Your task to perform on an android device: turn off translation in the chrome app Image 0: 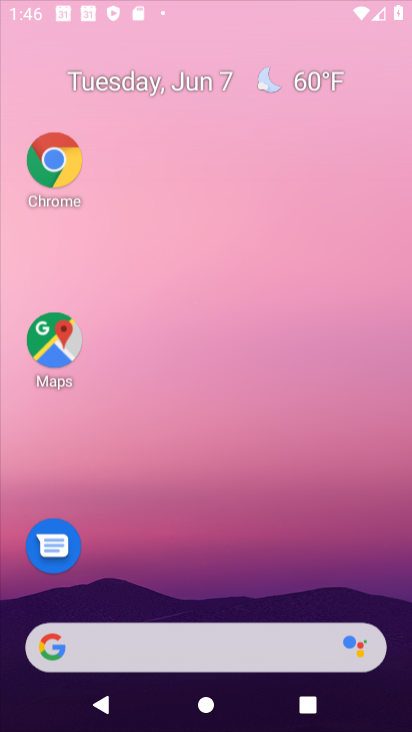
Step 0: click (347, 3)
Your task to perform on an android device: turn off translation in the chrome app Image 1: 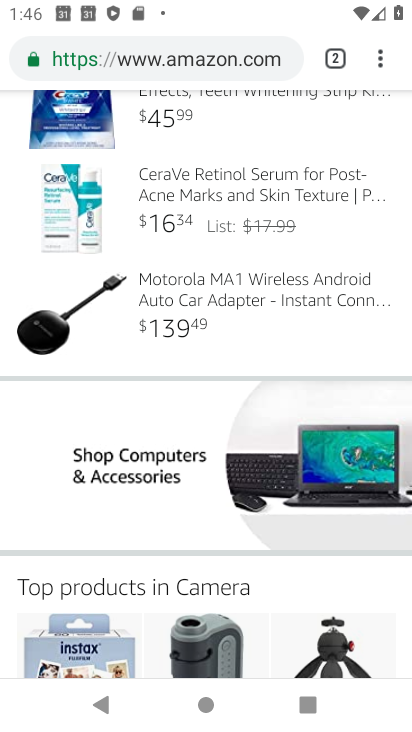
Step 1: drag from (210, 503) to (300, 68)
Your task to perform on an android device: turn off translation in the chrome app Image 2: 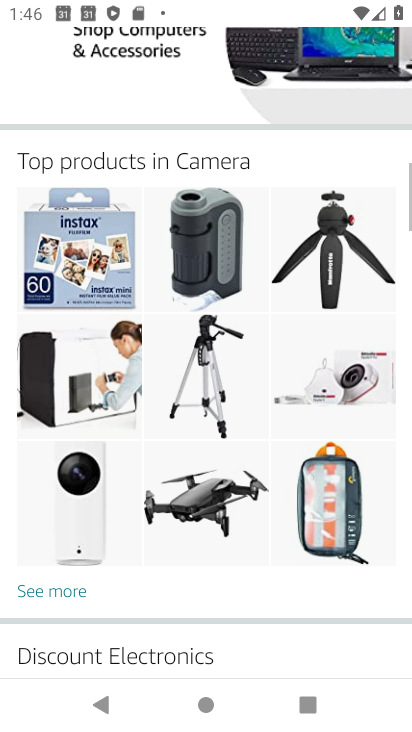
Step 2: drag from (309, 28) to (328, 675)
Your task to perform on an android device: turn off translation in the chrome app Image 3: 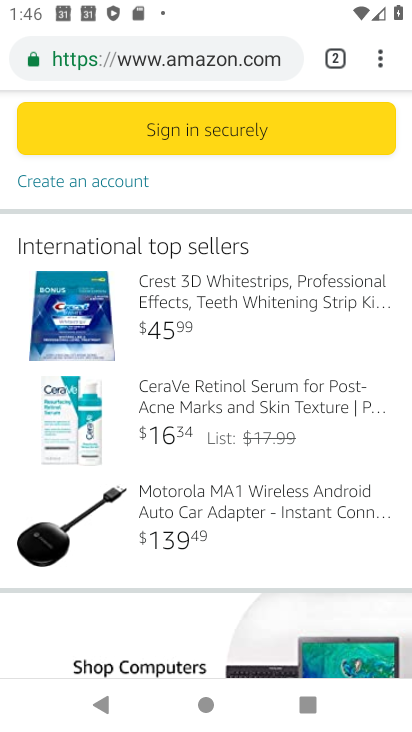
Step 3: drag from (250, 208) to (345, 715)
Your task to perform on an android device: turn off translation in the chrome app Image 4: 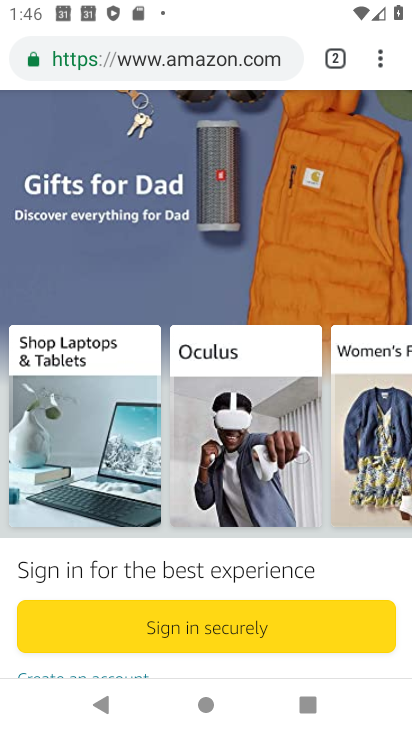
Step 4: drag from (383, 48) to (245, 561)
Your task to perform on an android device: turn off translation in the chrome app Image 5: 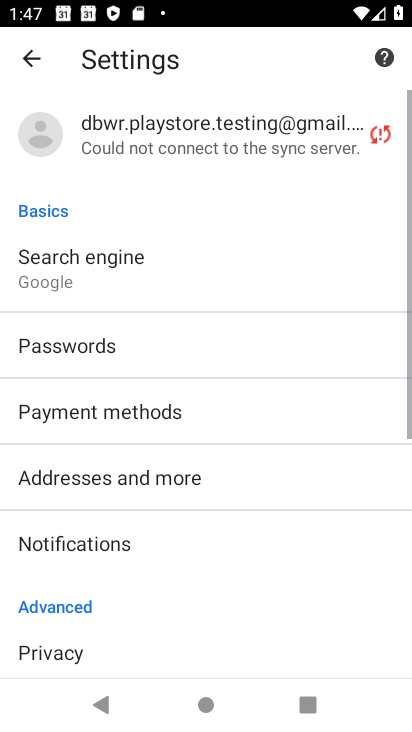
Step 5: drag from (236, 528) to (336, 2)
Your task to perform on an android device: turn off translation in the chrome app Image 6: 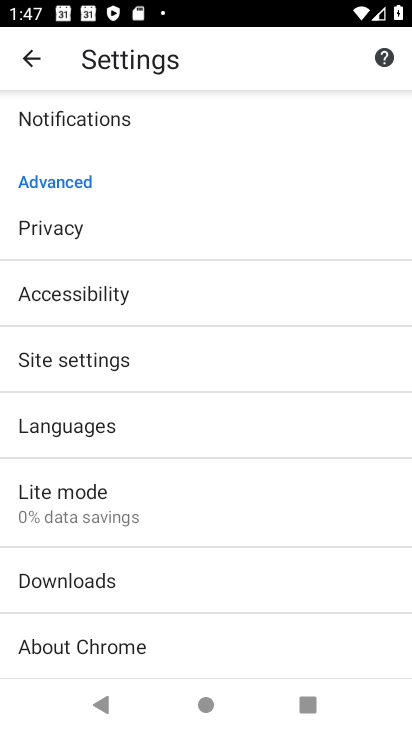
Step 6: click (92, 422)
Your task to perform on an android device: turn off translation in the chrome app Image 7: 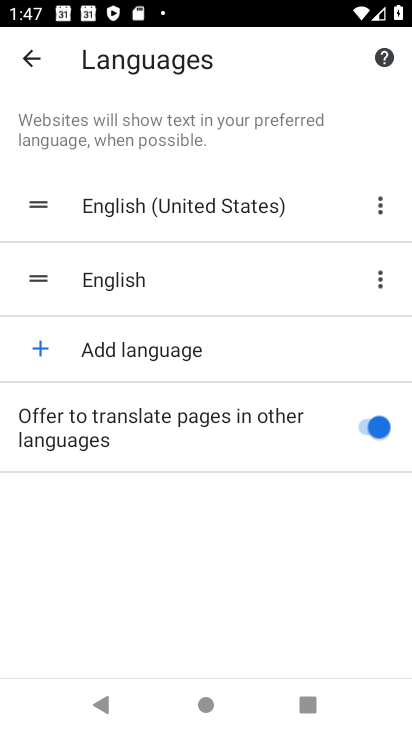
Step 7: click (362, 432)
Your task to perform on an android device: turn off translation in the chrome app Image 8: 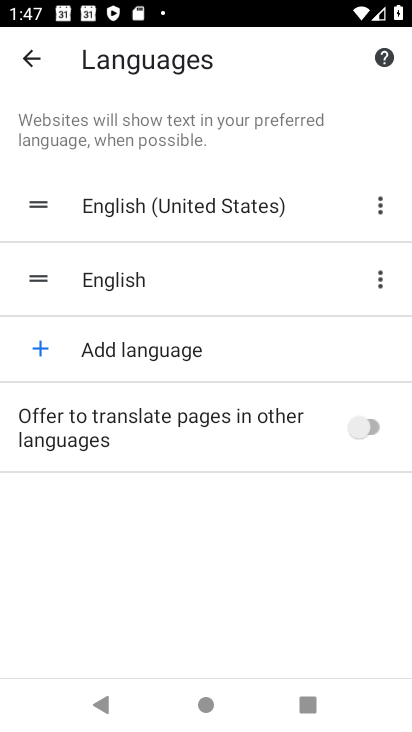
Step 8: task complete